Your task to perform on an android device: Open calendar and show me the fourth week of next month Image 0: 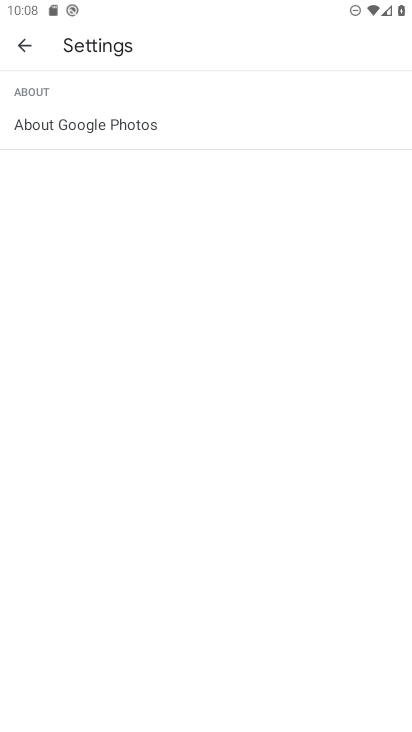
Step 0: press home button
Your task to perform on an android device: Open calendar and show me the fourth week of next month Image 1: 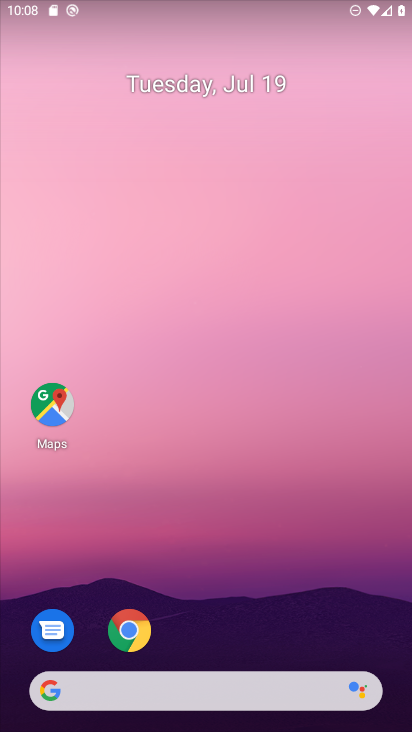
Step 1: drag from (74, 599) to (328, 92)
Your task to perform on an android device: Open calendar and show me the fourth week of next month Image 2: 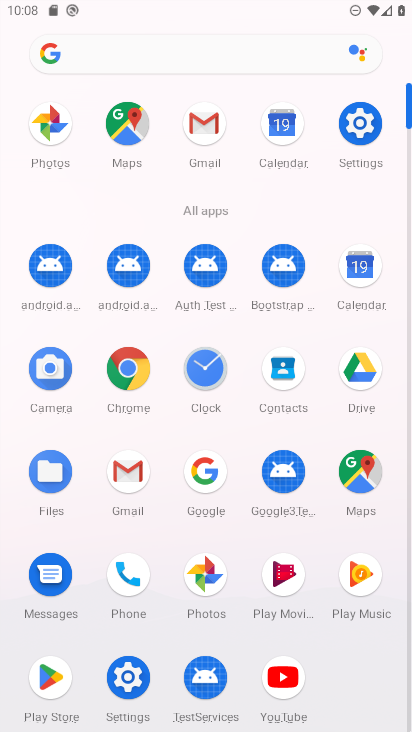
Step 2: click (359, 269)
Your task to perform on an android device: Open calendar and show me the fourth week of next month Image 3: 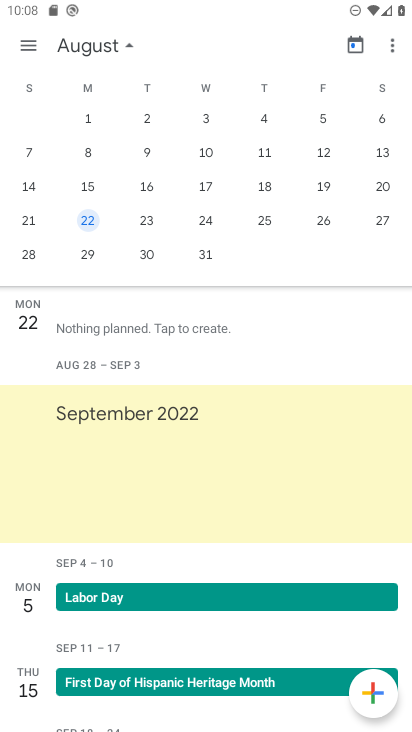
Step 3: drag from (8, 115) to (373, 115)
Your task to perform on an android device: Open calendar and show me the fourth week of next month Image 4: 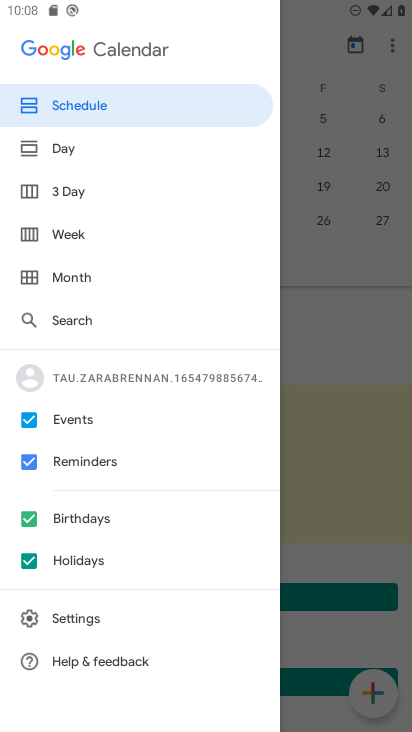
Step 4: click (347, 319)
Your task to perform on an android device: Open calendar and show me the fourth week of next month Image 5: 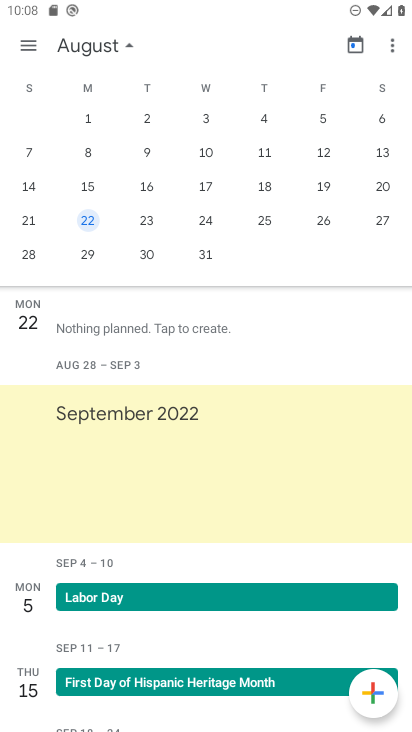
Step 5: task complete